Your task to perform on an android device: change keyboard looks Image 0: 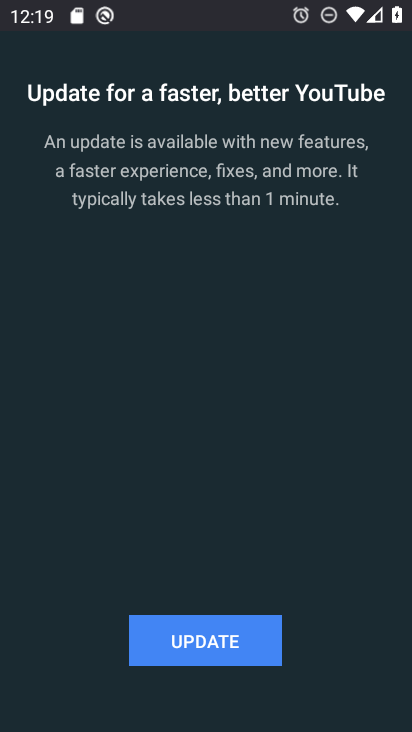
Step 0: press home button
Your task to perform on an android device: change keyboard looks Image 1: 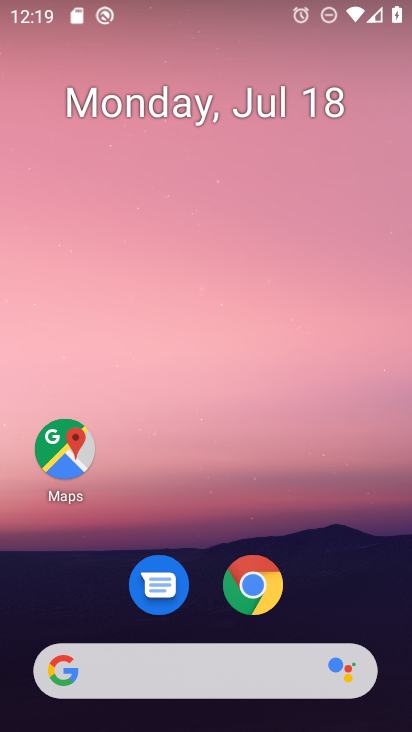
Step 1: drag from (324, 596) to (149, 1)
Your task to perform on an android device: change keyboard looks Image 2: 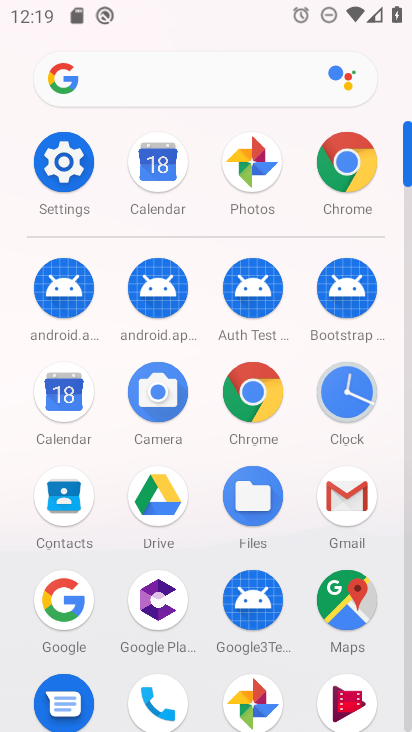
Step 2: click (66, 146)
Your task to perform on an android device: change keyboard looks Image 3: 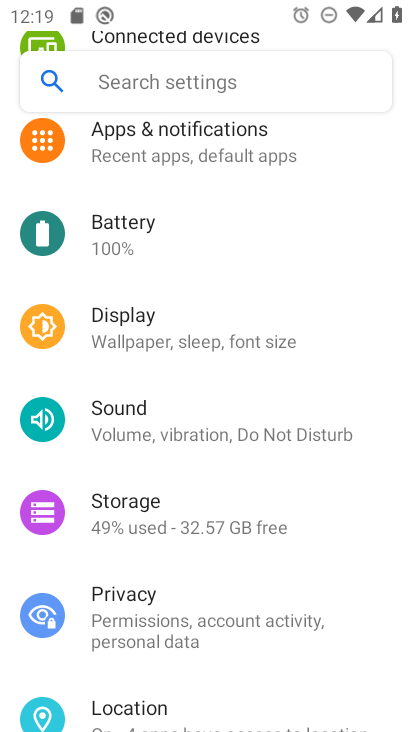
Step 3: drag from (213, 501) to (194, 7)
Your task to perform on an android device: change keyboard looks Image 4: 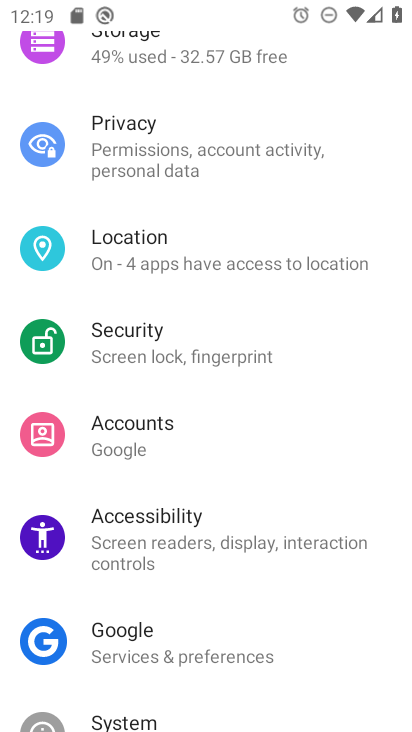
Step 4: drag from (277, 610) to (243, 358)
Your task to perform on an android device: change keyboard looks Image 5: 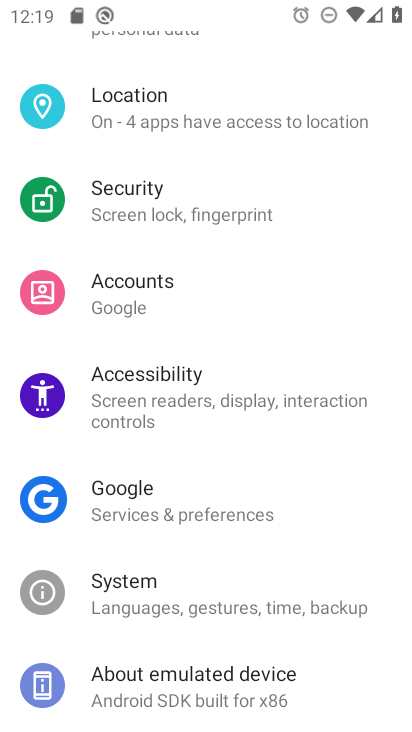
Step 5: click (227, 584)
Your task to perform on an android device: change keyboard looks Image 6: 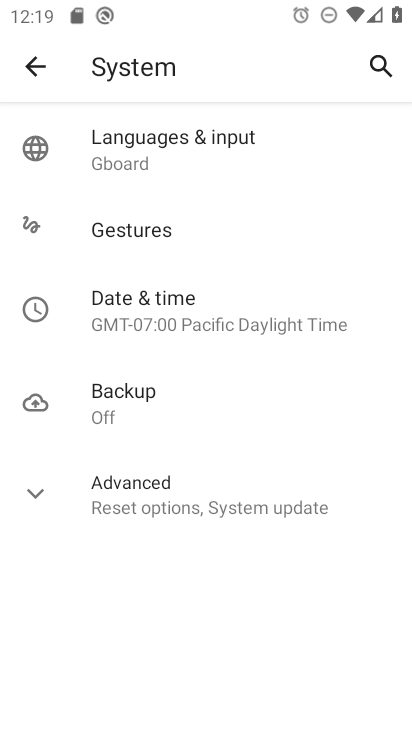
Step 6: click (196, 154)
Your task to perform on an android device: change keyboard looks Image 7: 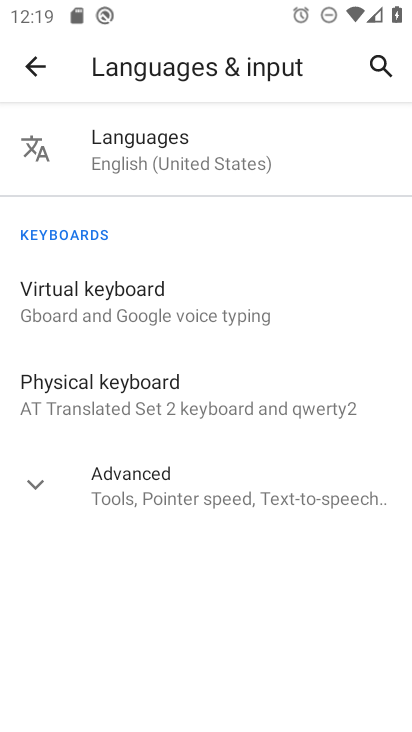
Step 7: click (135, 296)
Your task to perform on an android device: change keyboard looks Image 8: 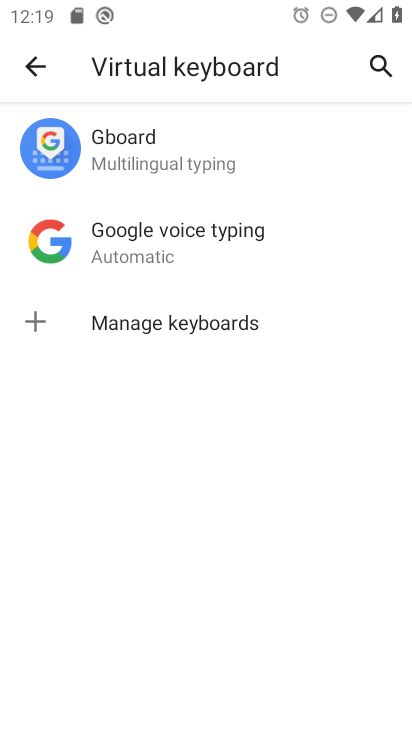
Step 8: click (131, 156)
Your task to perform on an android device: change keyboard looks Image 9: 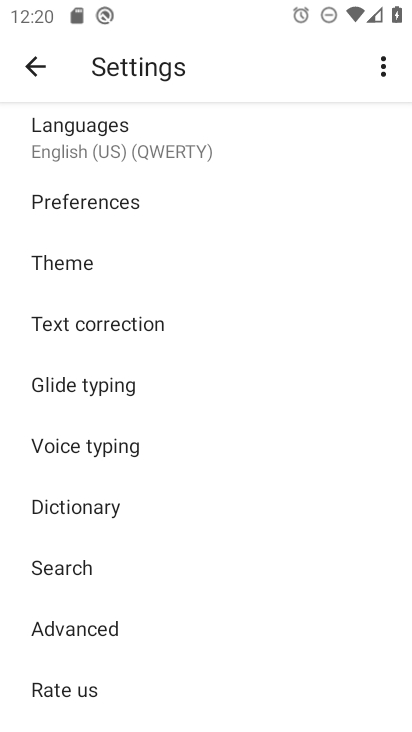
Step 9: click (84, 271)
Your task to perform on an android device: change keyboard looks Image 10: 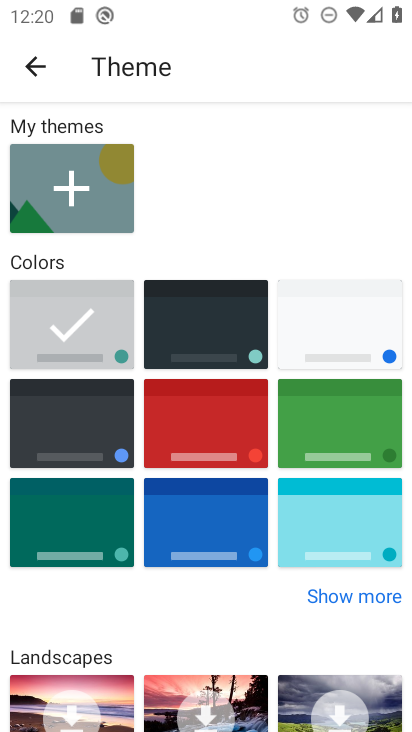
Step 10: click (191, 396)
Your task to perform on an android device: change keyboard looks Image 11: 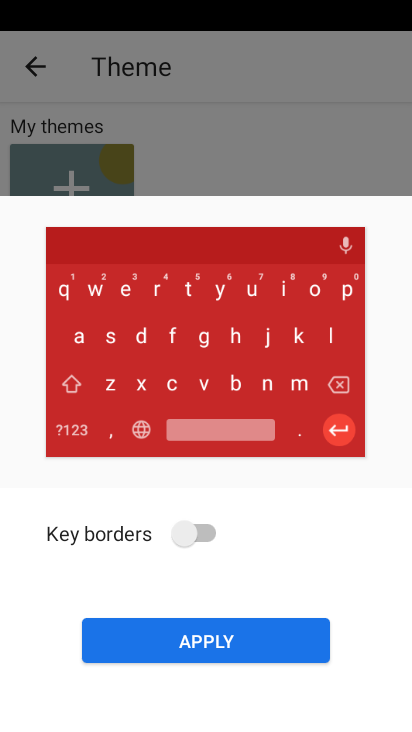
Step 11: click (200, 535)
Your task to perform on an android device: change keyboard looks Image 12: 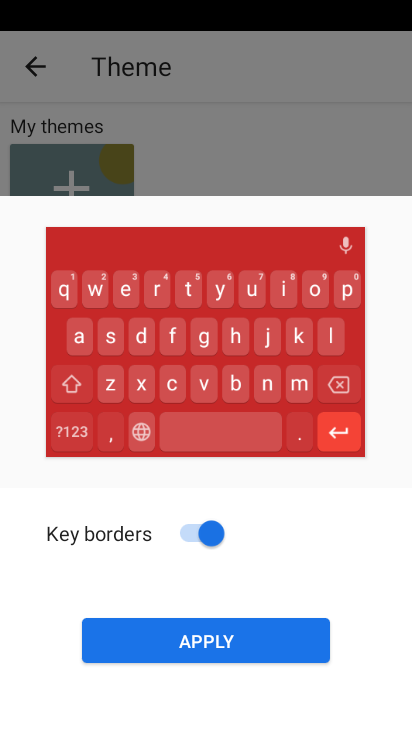
Step 12: click (217, 626)
Your task to perform on an android device: change keyboard looks Image 13: 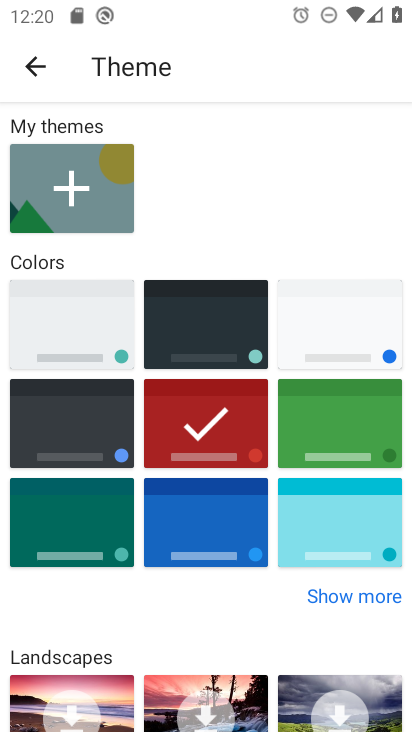
Step 13: task complete